Your task to perform on an android device: Show me popular games on the Play Store Image 0: 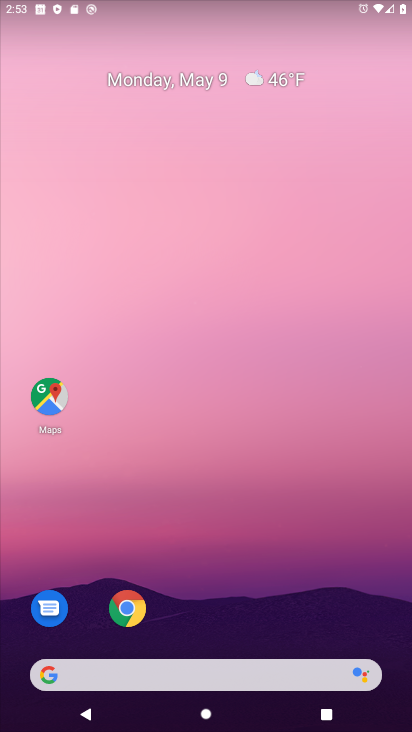
Step 0: drag from (222, 618) to (278, 279)
Your task to perform on an android device: Show me popular games on the Play Store Image 1: 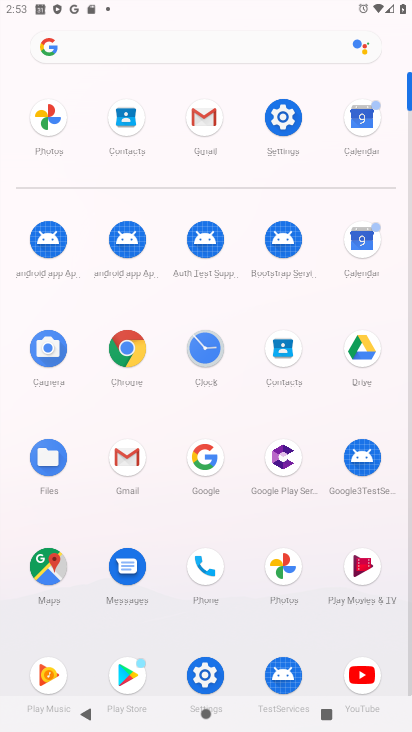
Step 1: click (132, 671)
Your task to perform on an android device: Show me popular games on the Play Store Image 2: 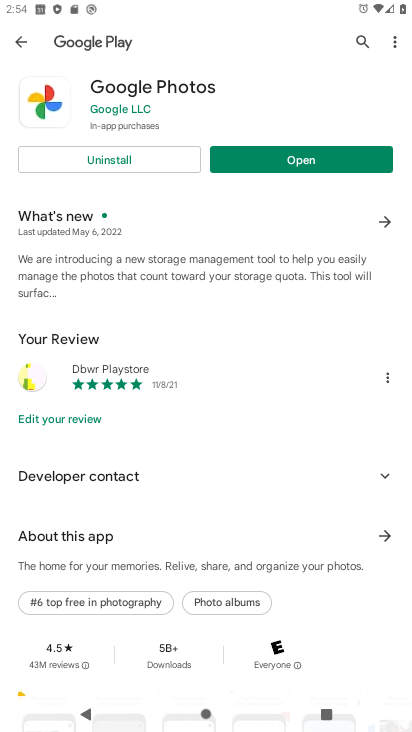
Step 2: click (18, 40)
Your task to perform on an android device: Show me popular games on the Play Store Image 3: 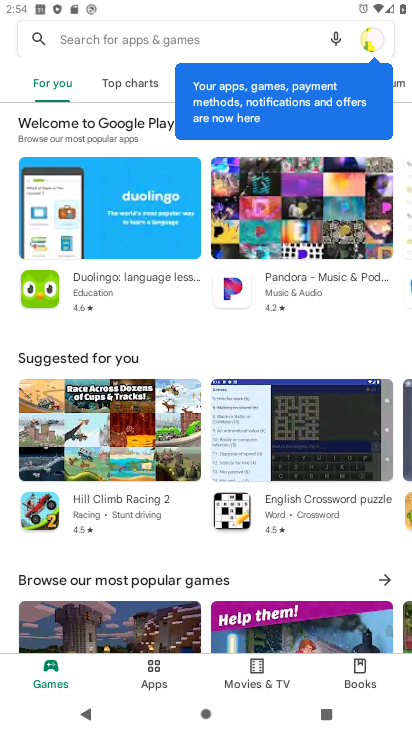
Step 3: click (123, 35)
Your task to perform on an android device: Show me popular games on the Play Store Image 4: 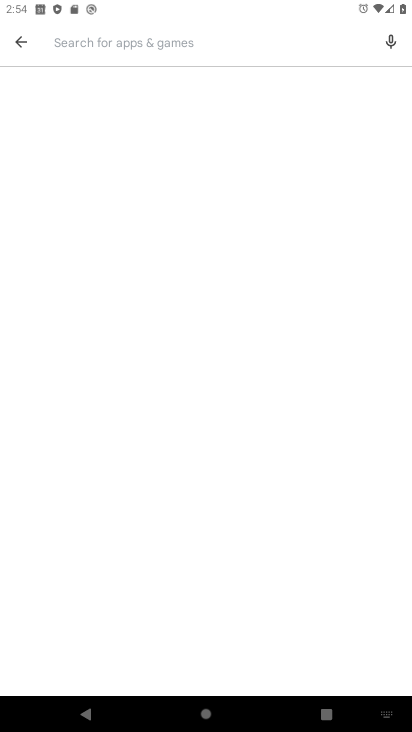
Step 4: type "popular games"
Your task to perform on an android device: Show me popular games on the Play Store Image 5: 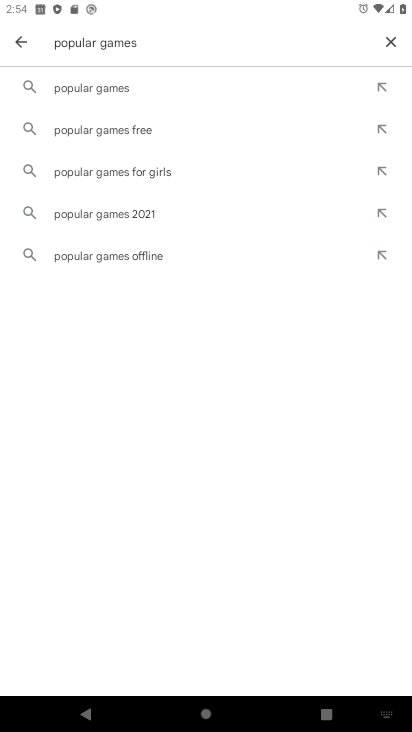
Step 5: click (123, 99)
Your task to perform on an android device: Show me popular games on the Play Store Image 6: 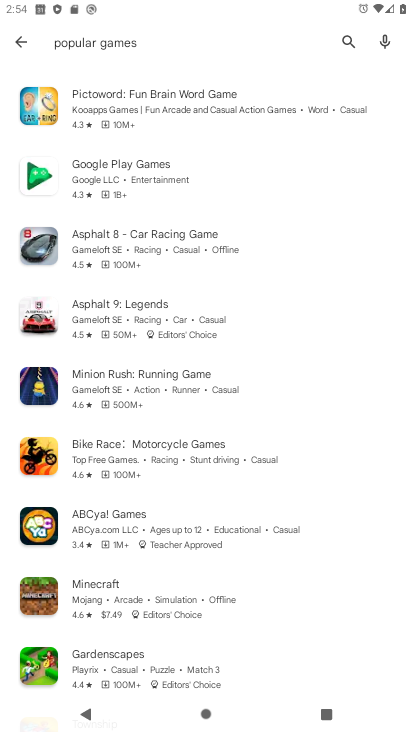
Step 6: task complete